Your task to perform on an android device: How do I get to the nearest Subway? Image 0: 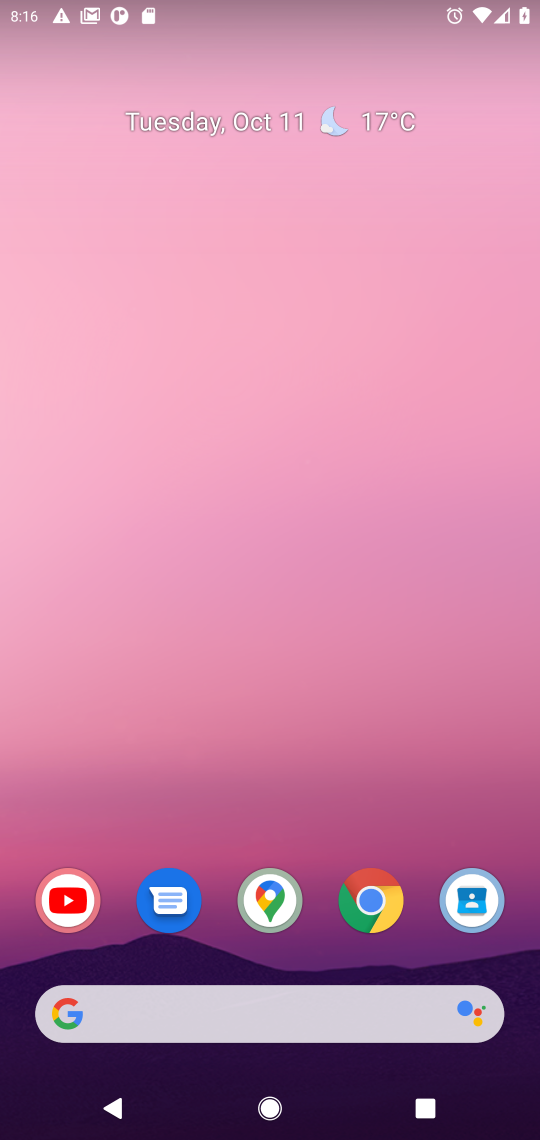
Step 0: click (535, 818)
Your task to perform on an android device: How do I get to the nearest Subway? Image 1: 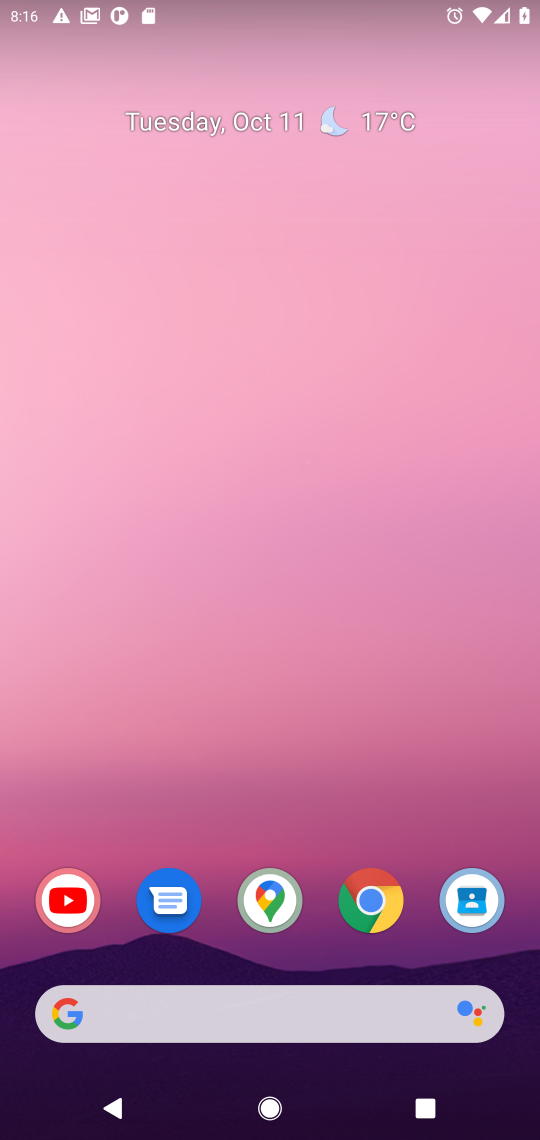
Step 1: click (363, 904)
Your task to perform on an android device: How do I get to the nearest Subway? Image 2: 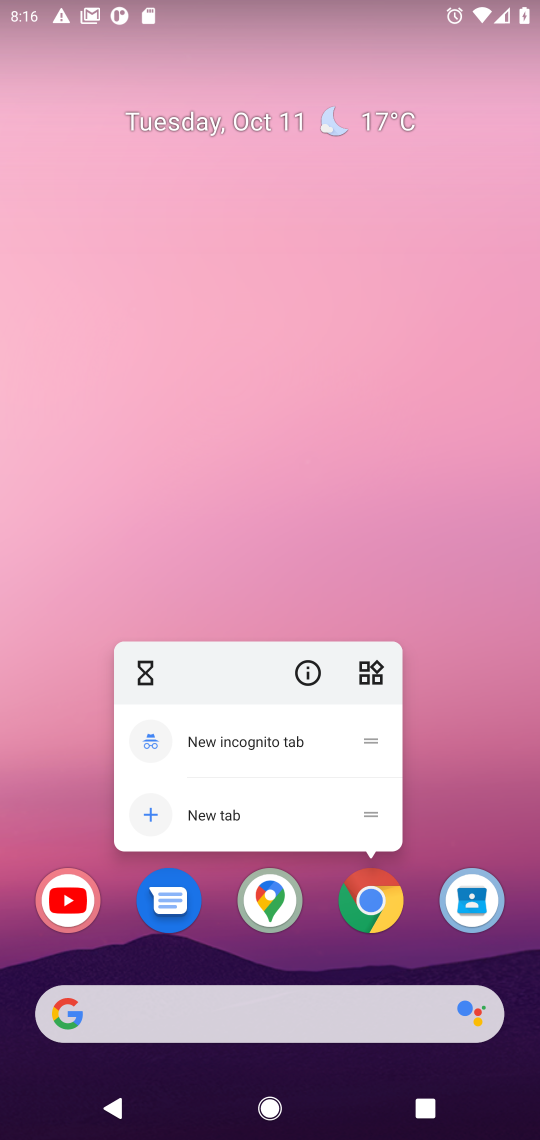
Step 2: click (363, 904)
Your task to perform on an android device: How do I get to the nearest Subway? Image 3: 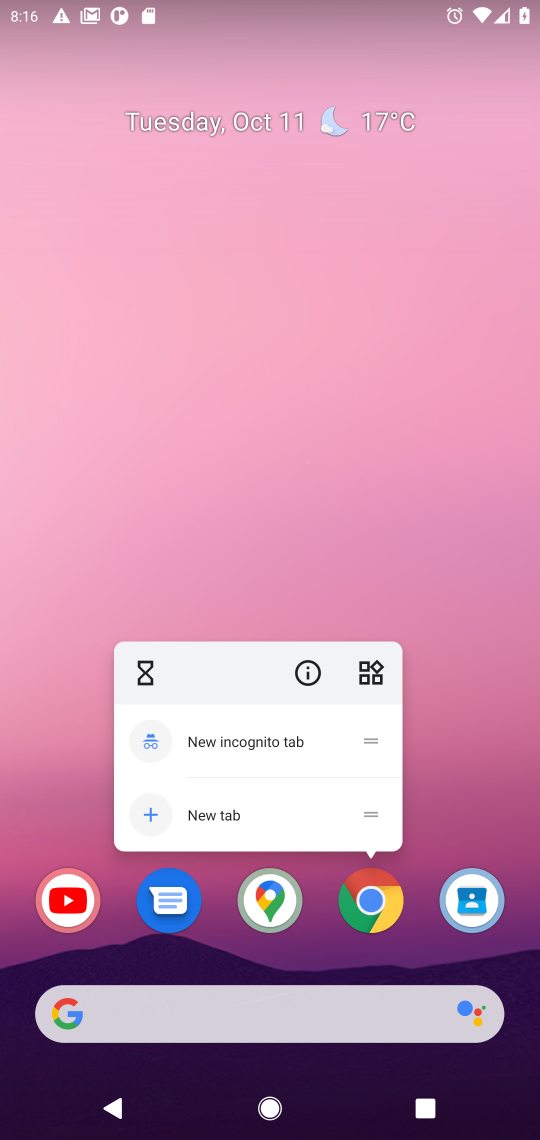
Step 3: click (377, 910)
Your task to perform on an android device: How do I get to the nearest Subway? Image 4: 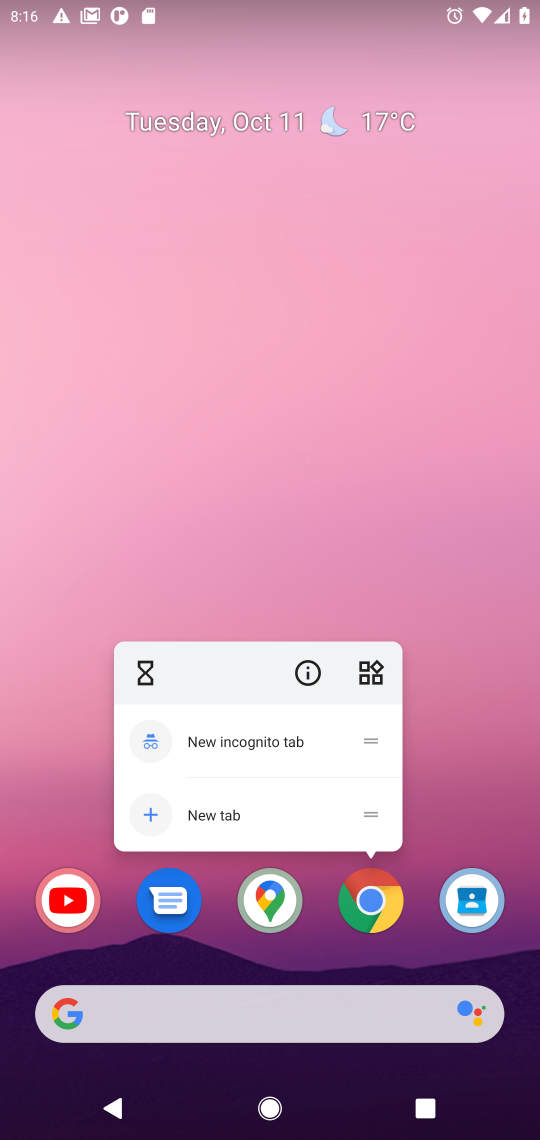
Step 4: click (369, 898)
Your task to perform on an android device: How do I get to the nearest Subway? Image 5: 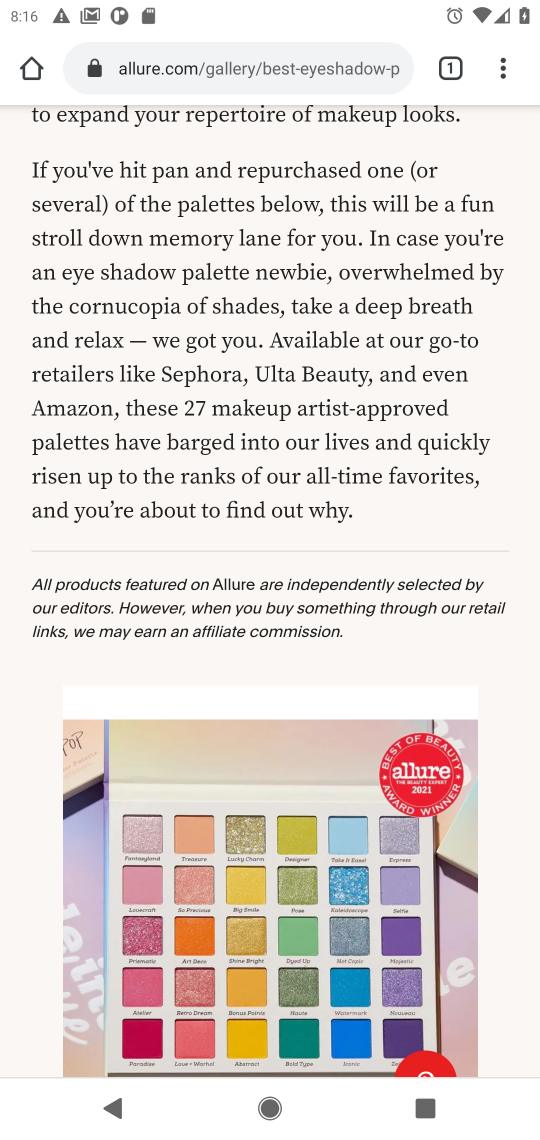
Step 5: click (234, 69)
Your task to perform on an android device: How do I get to the nearest Subway? Image 6: 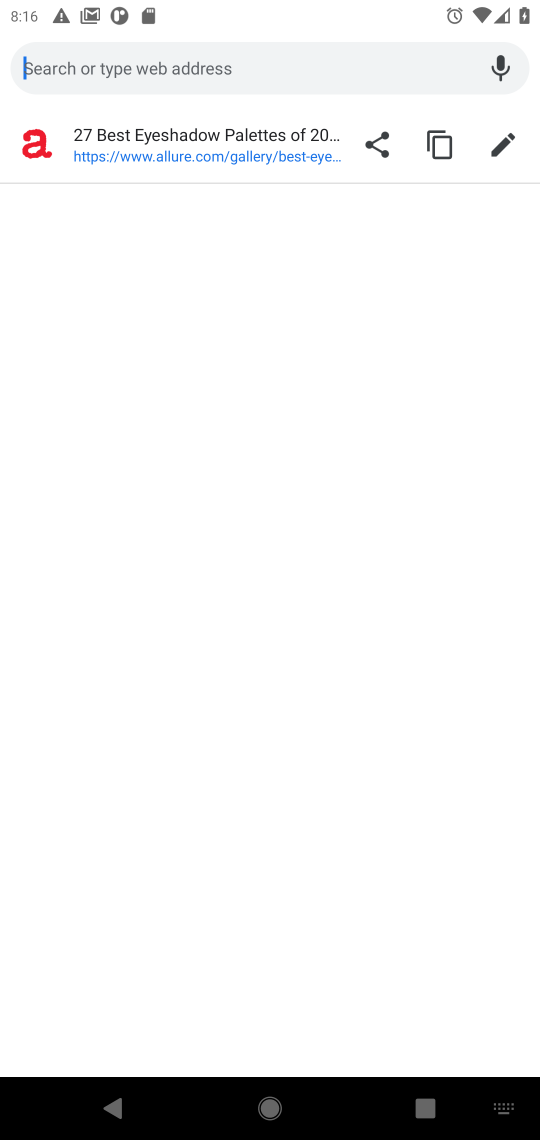
Step 6: type "How do I get to the nearest Subway"
Your task to perform on an android device: How do I get to the nearest Subway? Image 7: 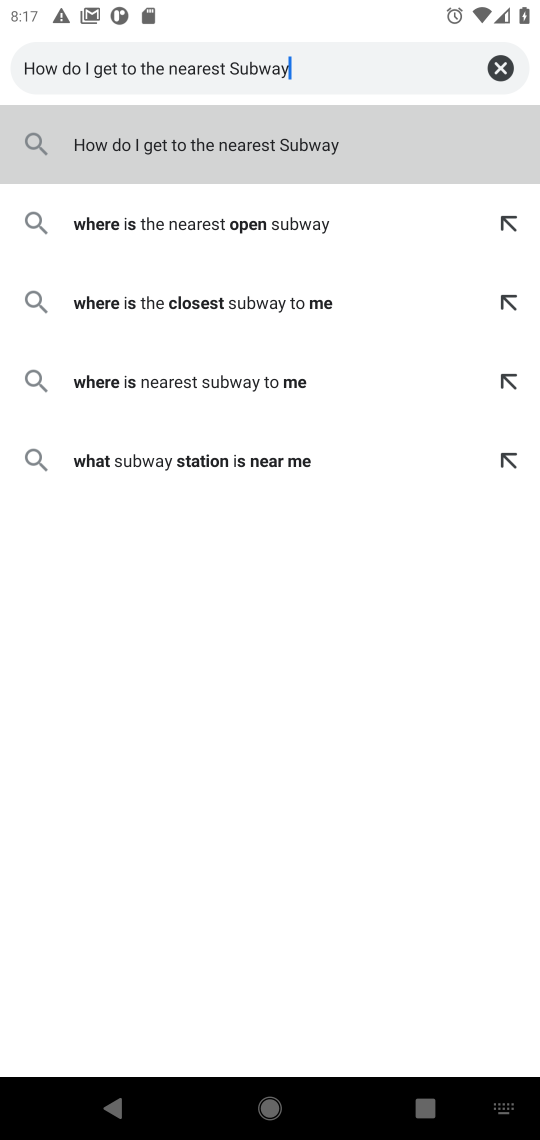
Step 7: press enter
Your task to perform on an android device: How do I get to the nearest Subway? Image 8: 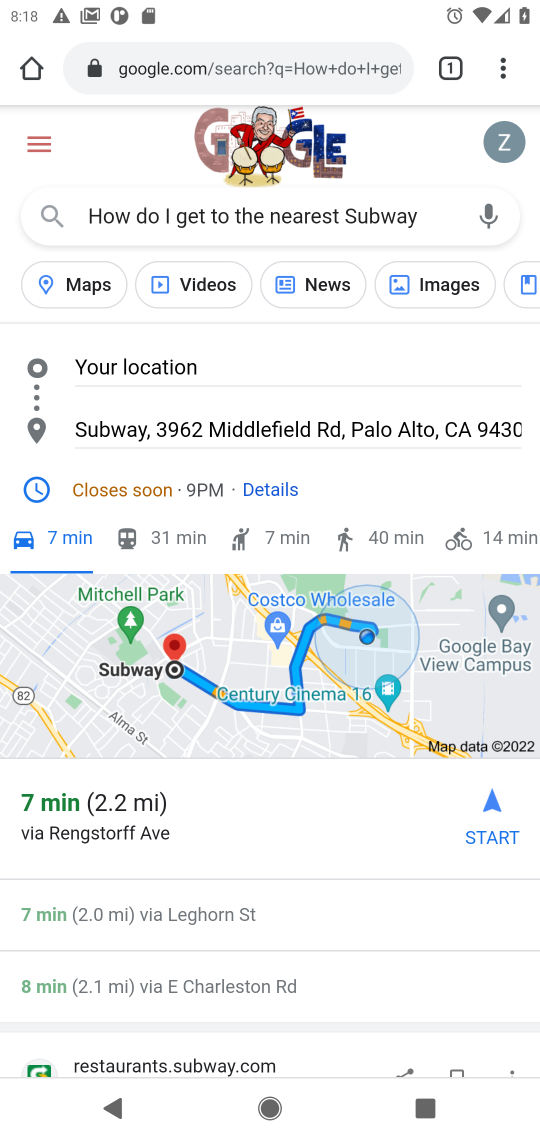
Step 8: task complete